Your task to perform on an android device: Go to network settings Image 0: 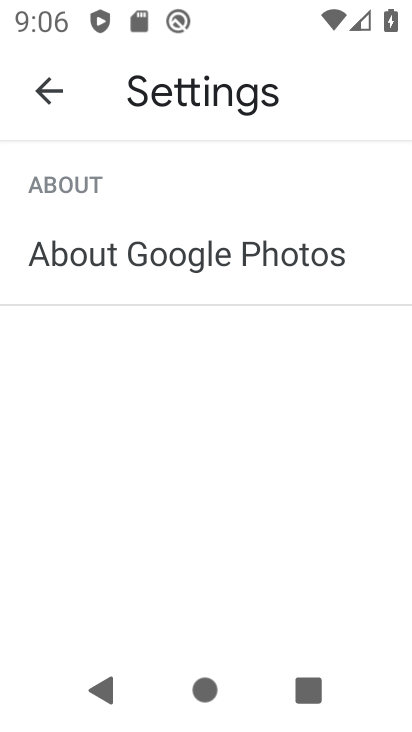
Step 0: press back button
Your task to perform on an android device: Go to network settings Image 1: 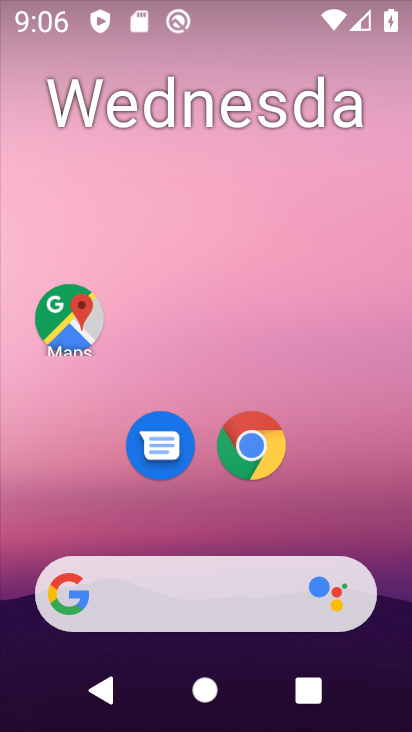
Step 1: drag from (248, 518) to (274, 0)
Your task to perform on an android device: Go to network settings Image 2: 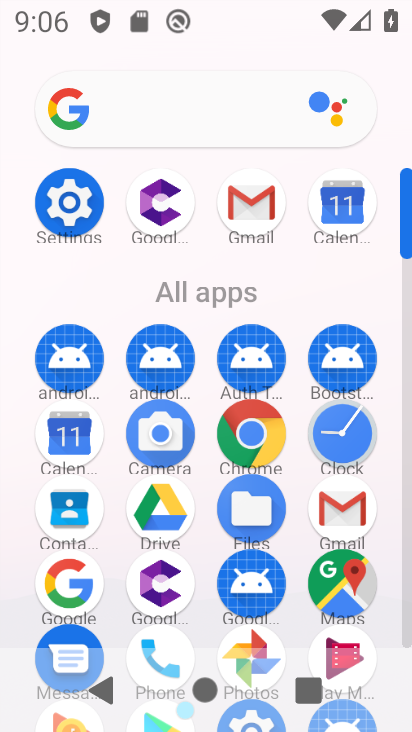
Step 2: click (70, 211)
Your task to perform on an android device: Go to network settings Image 3: 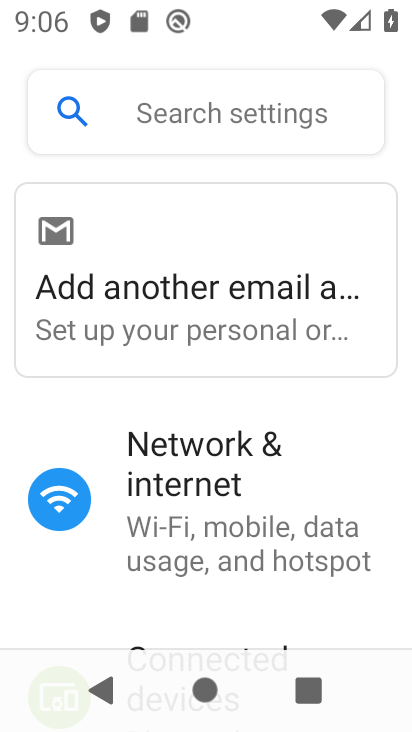
Step 3: click (178, 483)
Your task to perform on an android device: Go to network settings Image 4: 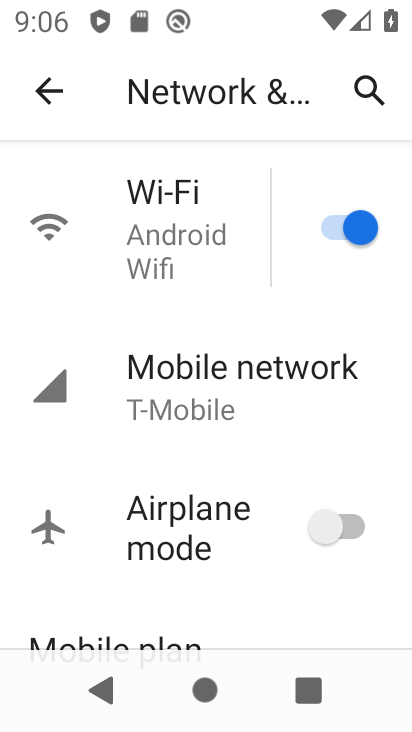
Step 4: task complete